Your task to perform on an android device: uninstall "Nova Launcher" Image 0: 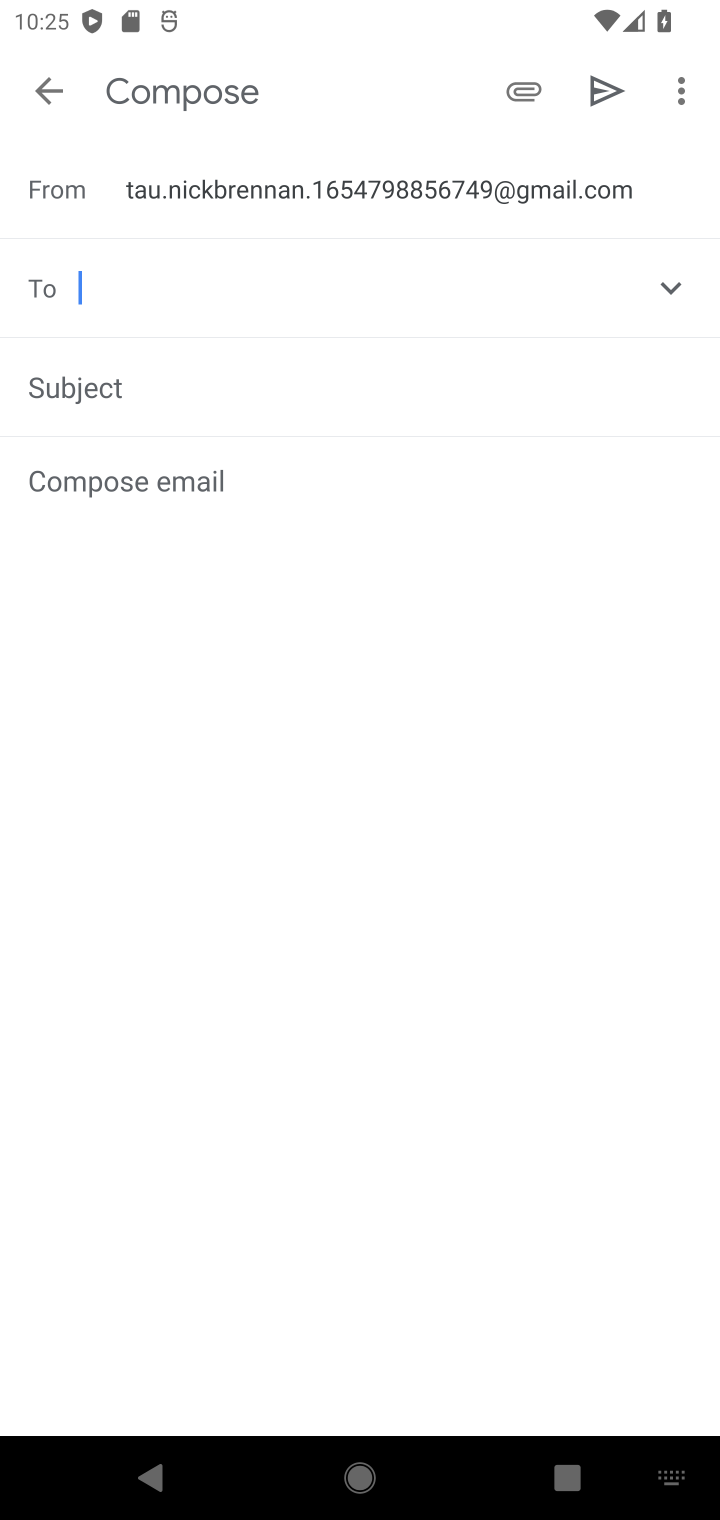
Step 0: press home button
Your task to perform on an android device: uninstall "Nova Launcher" Image 1: 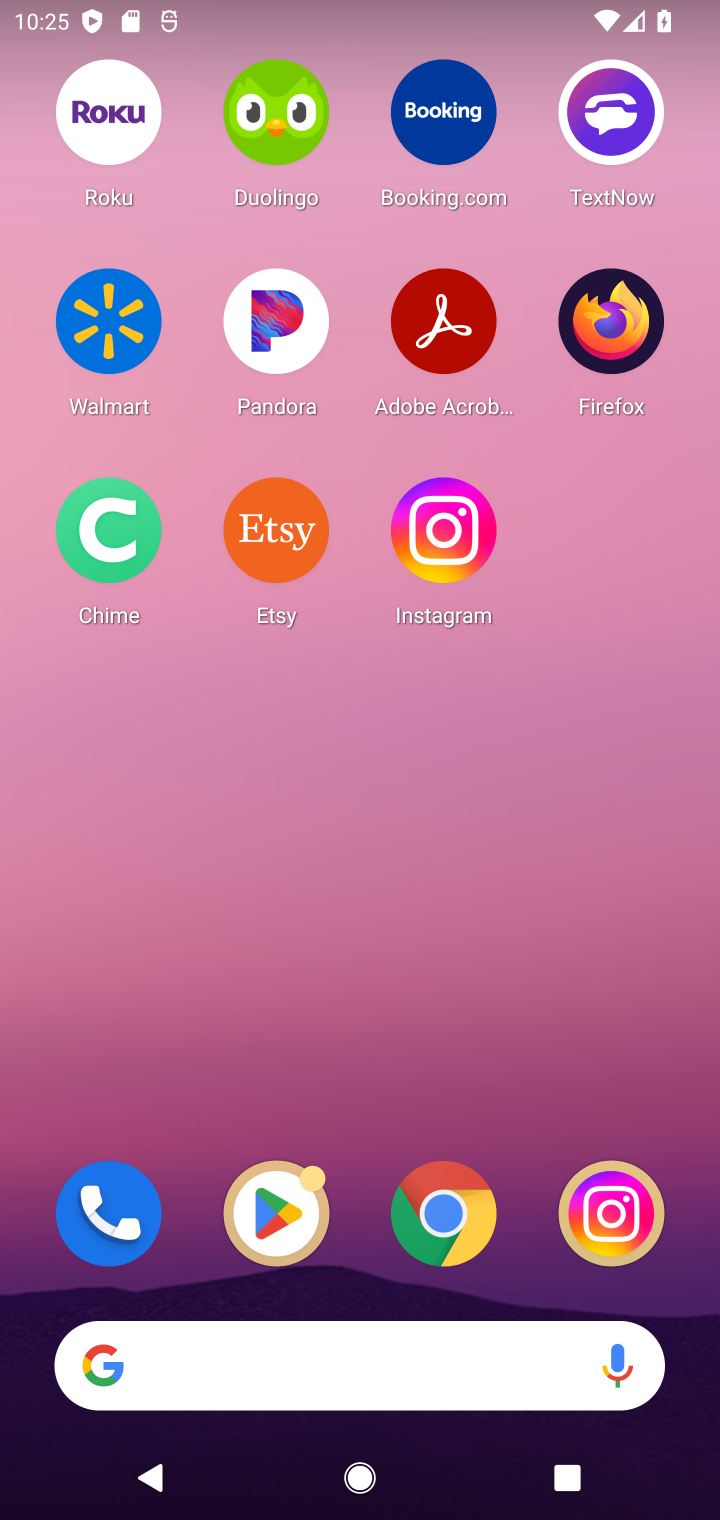
Step 1: click (277, 1192)
Your task to perform on an android device: uninstall "Nova Launcher" Image 2: 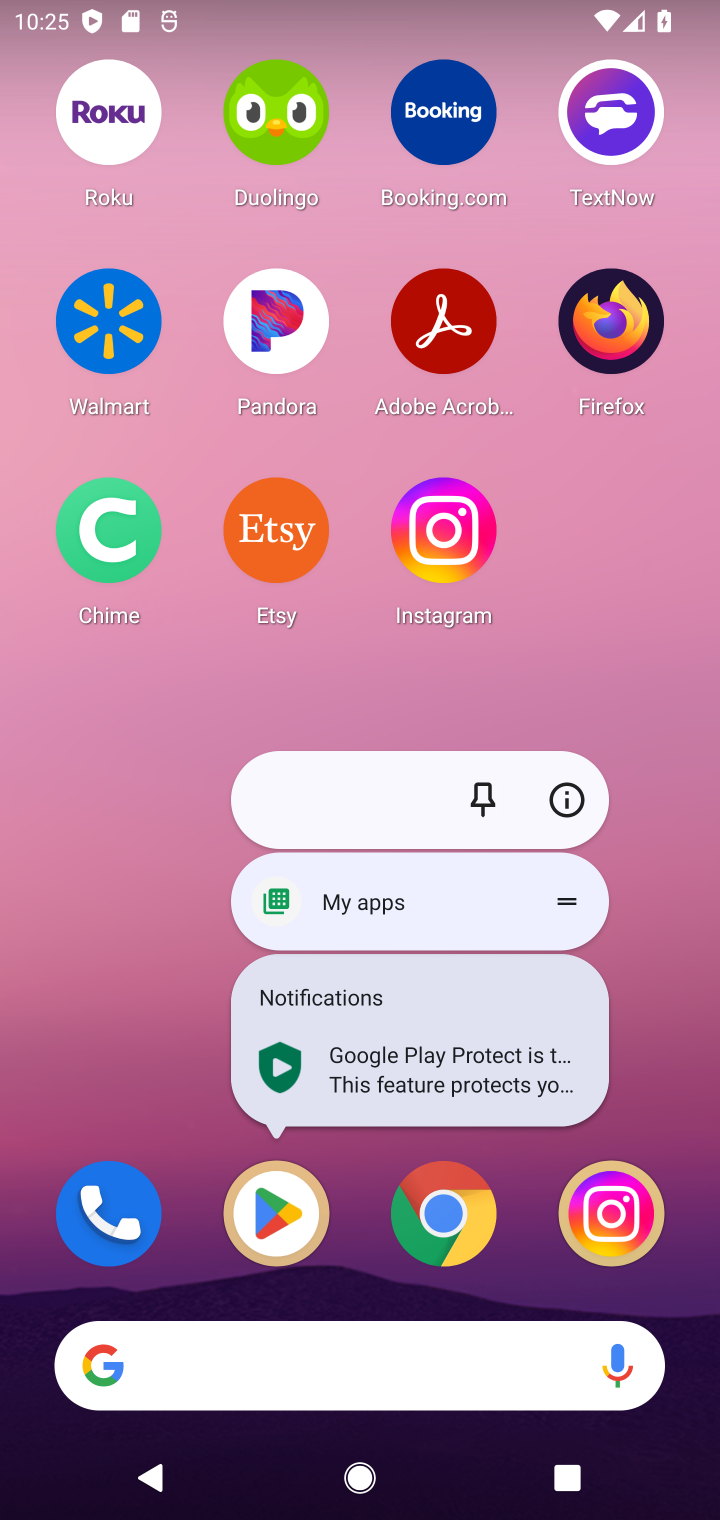
Step 2: click (277, 1216)
Your task to perform on an android device: uninstall "Nova Launcher" Image 3: 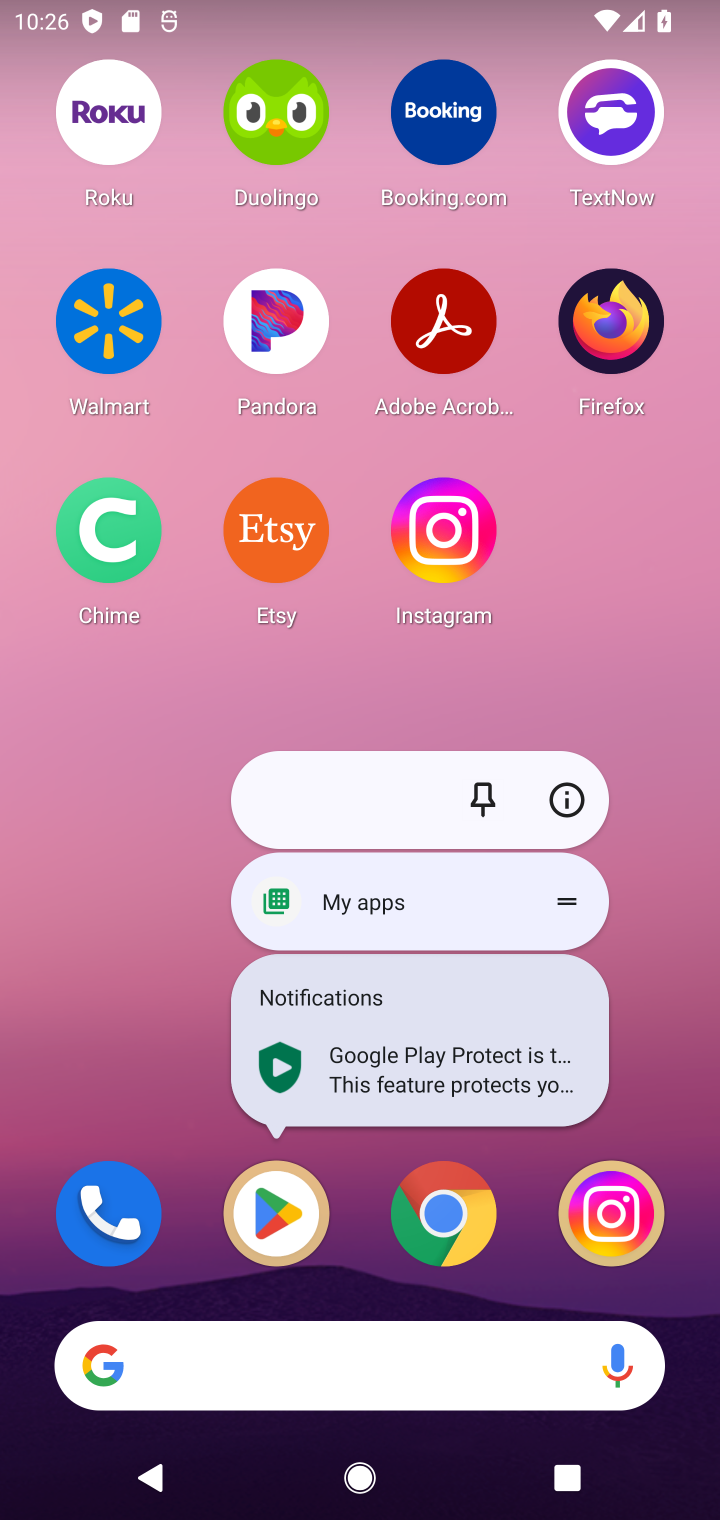
Step 3: click (277, 1218)
Your task to perform on an android device: uninstall "Nova Launcher" Image 4: 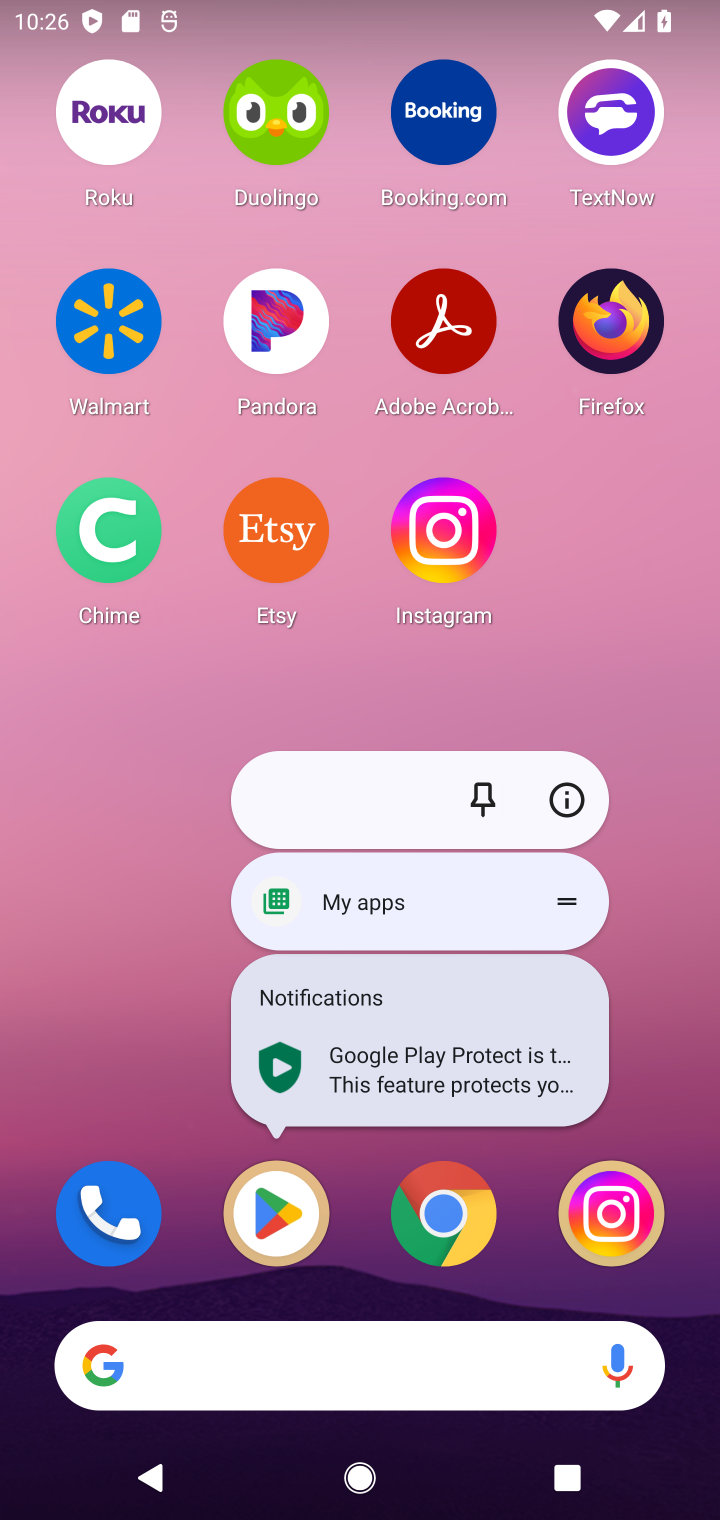
Step 4: click (277, 1218)
Your task to perform on an android device: uninstall "Nova Launcher" Image 5: 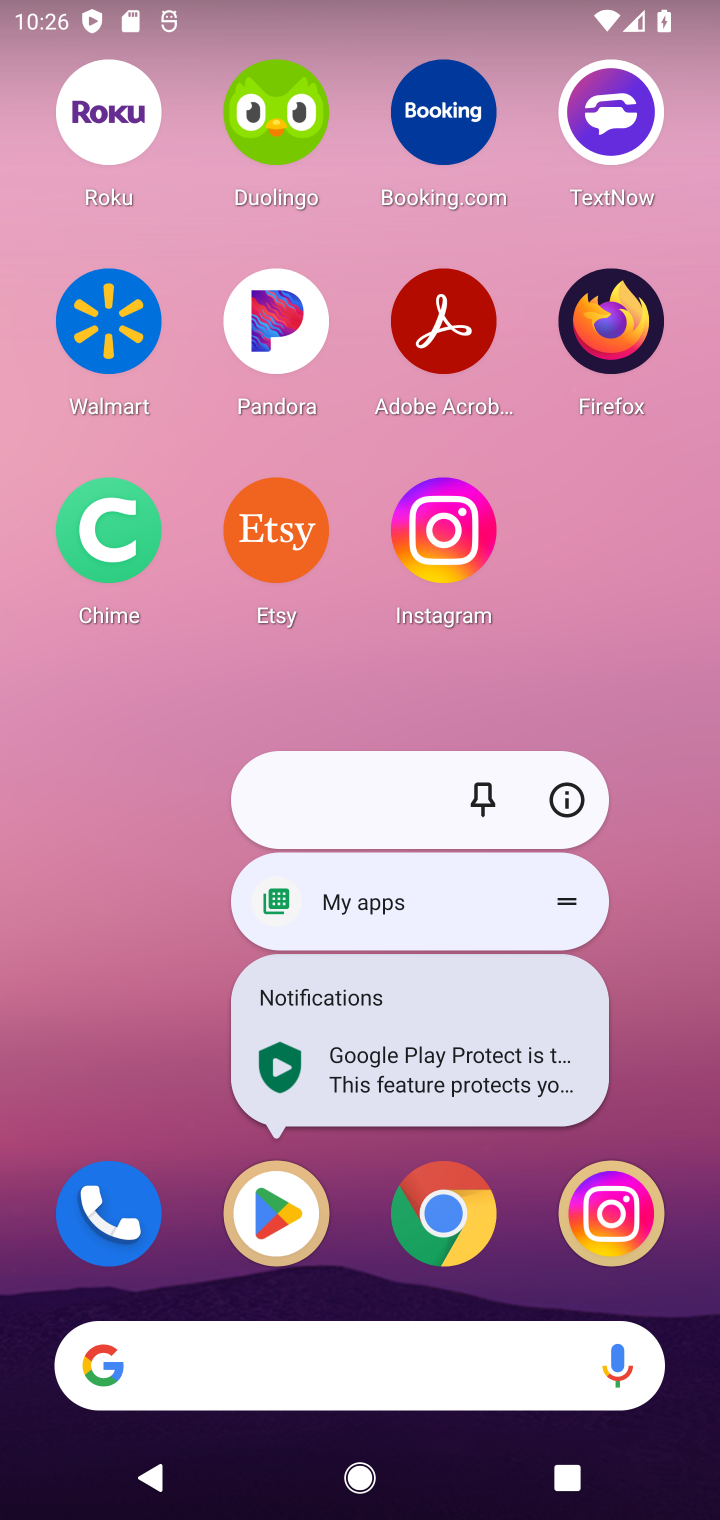
Step 5: click (277, 1218)
Your task to perform on an android device: uninstall "Nova Launcher" Image 6: 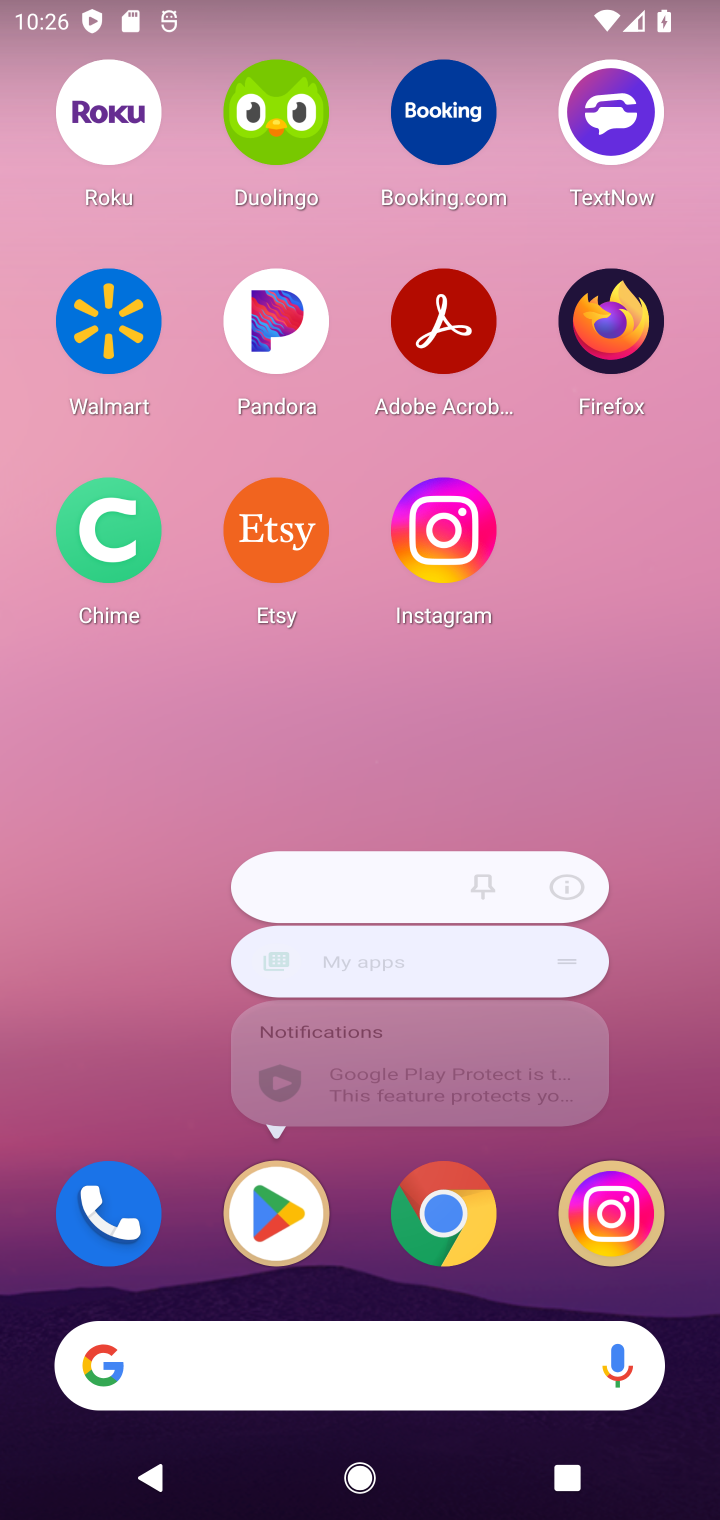
Step 6: click (277, 1218)
Your task to perform on an android device: uninstall "Nova Launcher" Image 7: 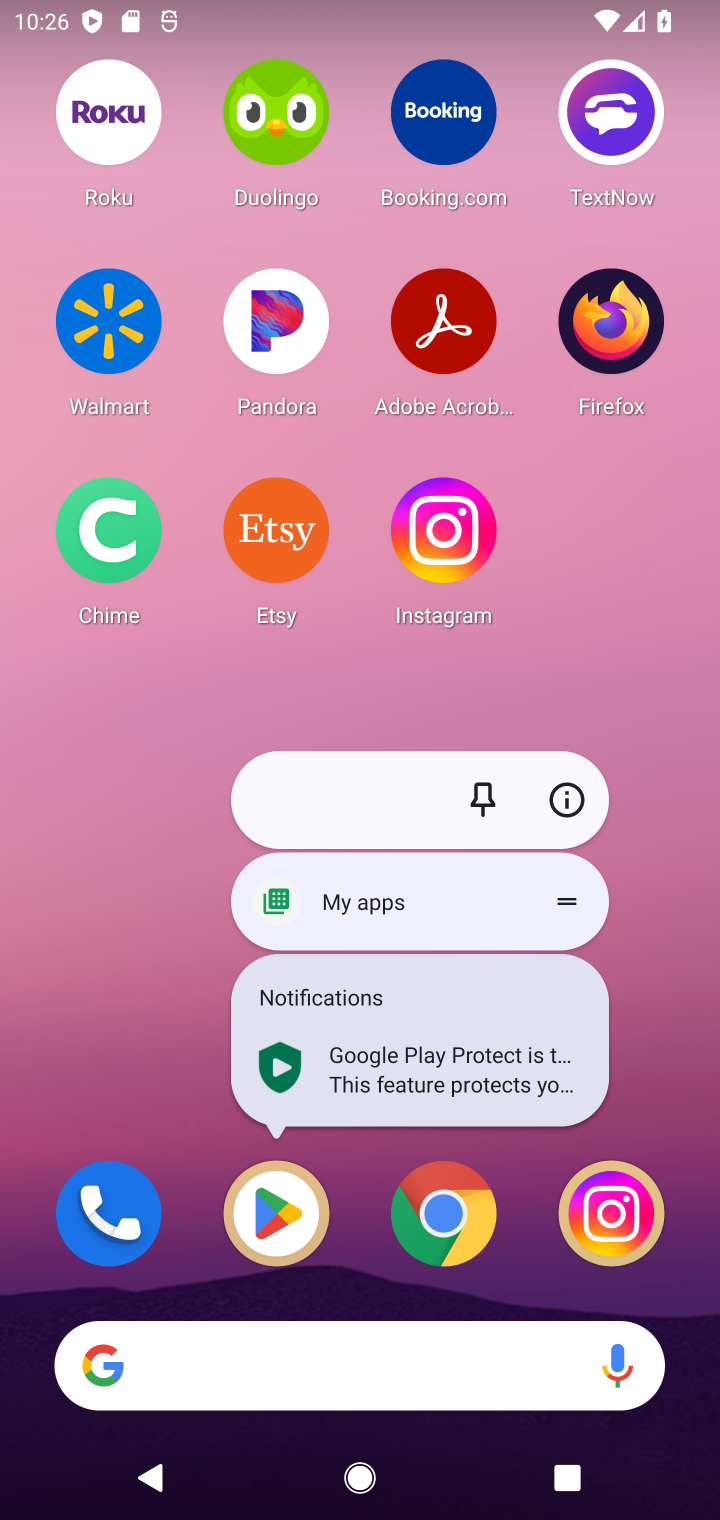
Step 7: click (277, 1218)
Your task to perform on an android device: uninstall "Nova Launcher" Image 8: 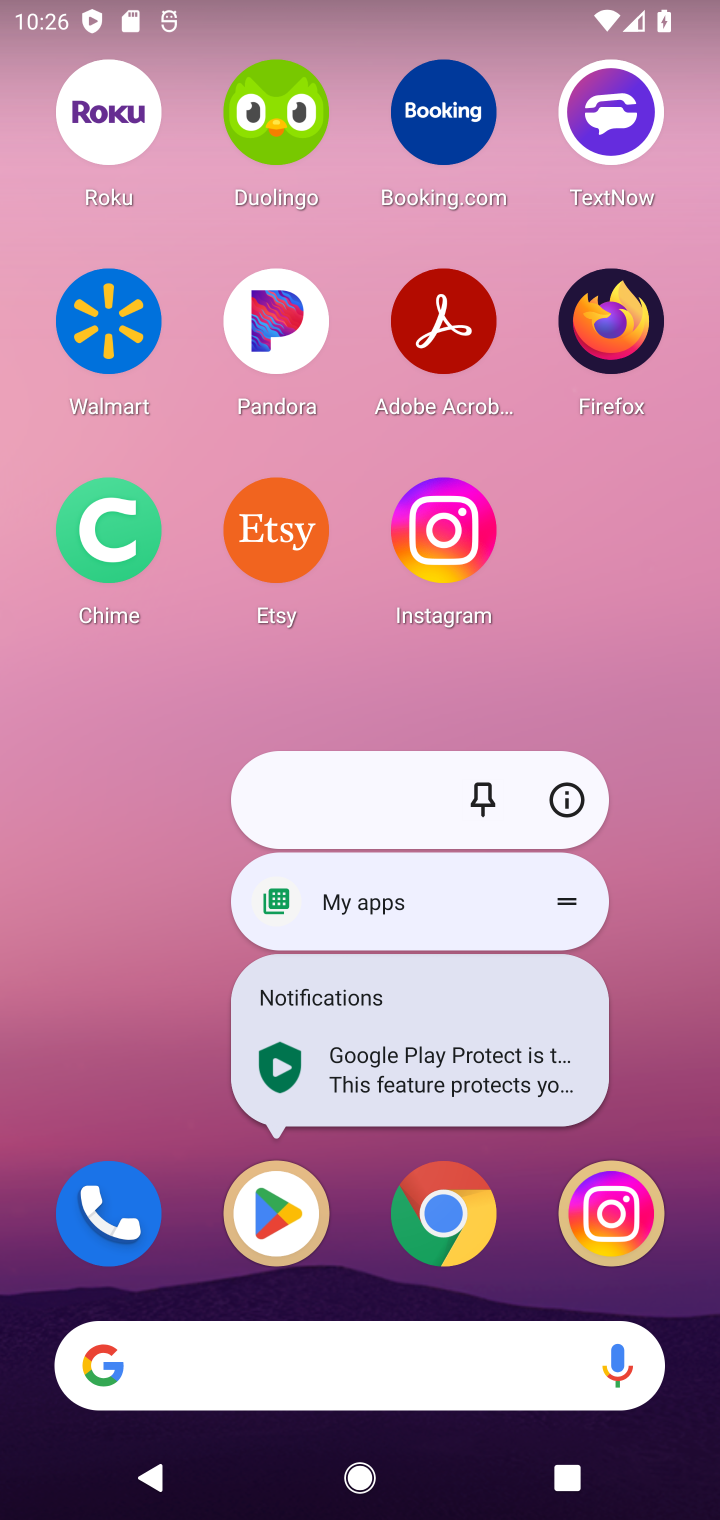
Step 8: click (277, 1216)
Your task to perform on an android device: uninstall "Nova Launcher" Image 9: 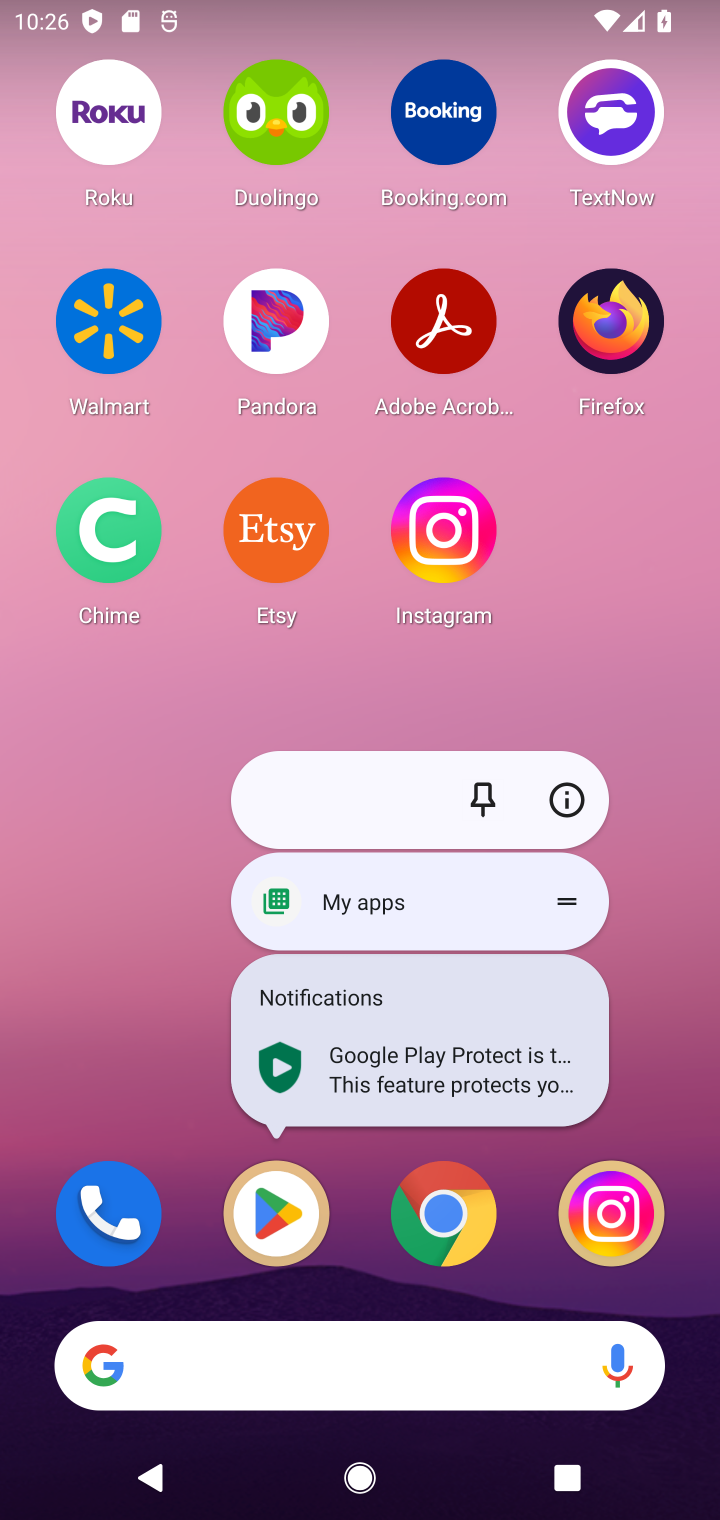
Step 9: click (302, 1216)
Your task to perform on an android device: uninstall "Nova Launcher" Image 10: 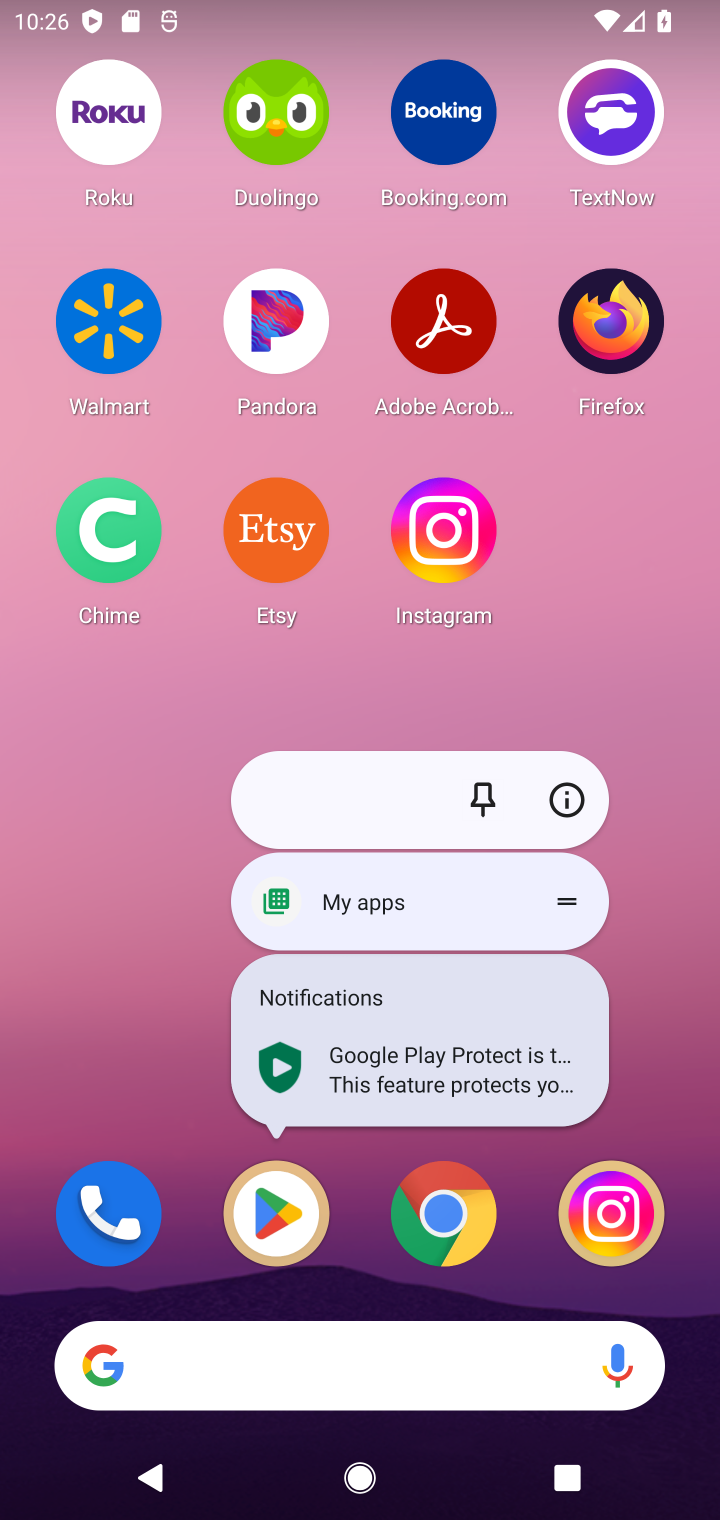
Step 10: click (302, 1216)
Your task to perform on an android device: uninstall "Nova Launcher" Image 11: 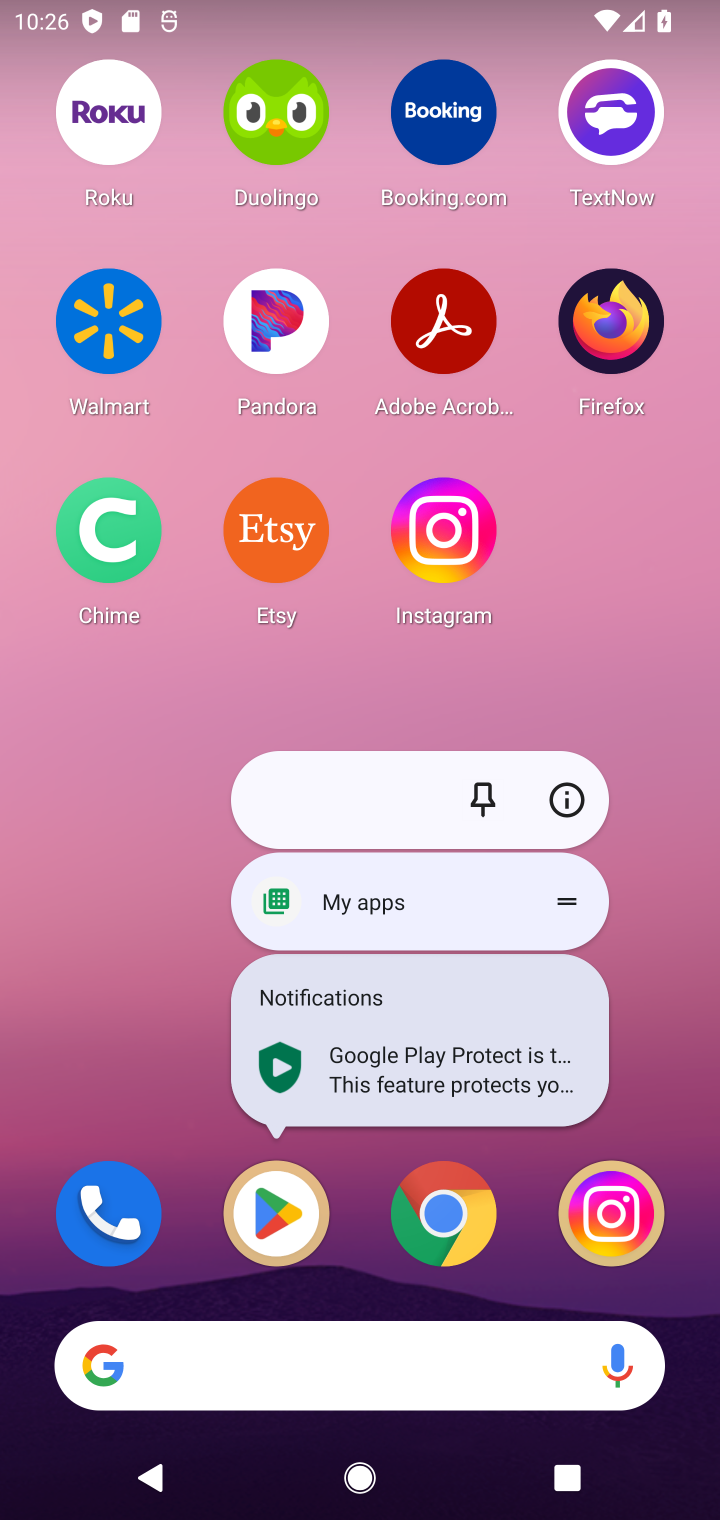
Step 11: click (276, 1232)
Your task to perform on an android device: uninstall "Nova Launcher" Image 12: 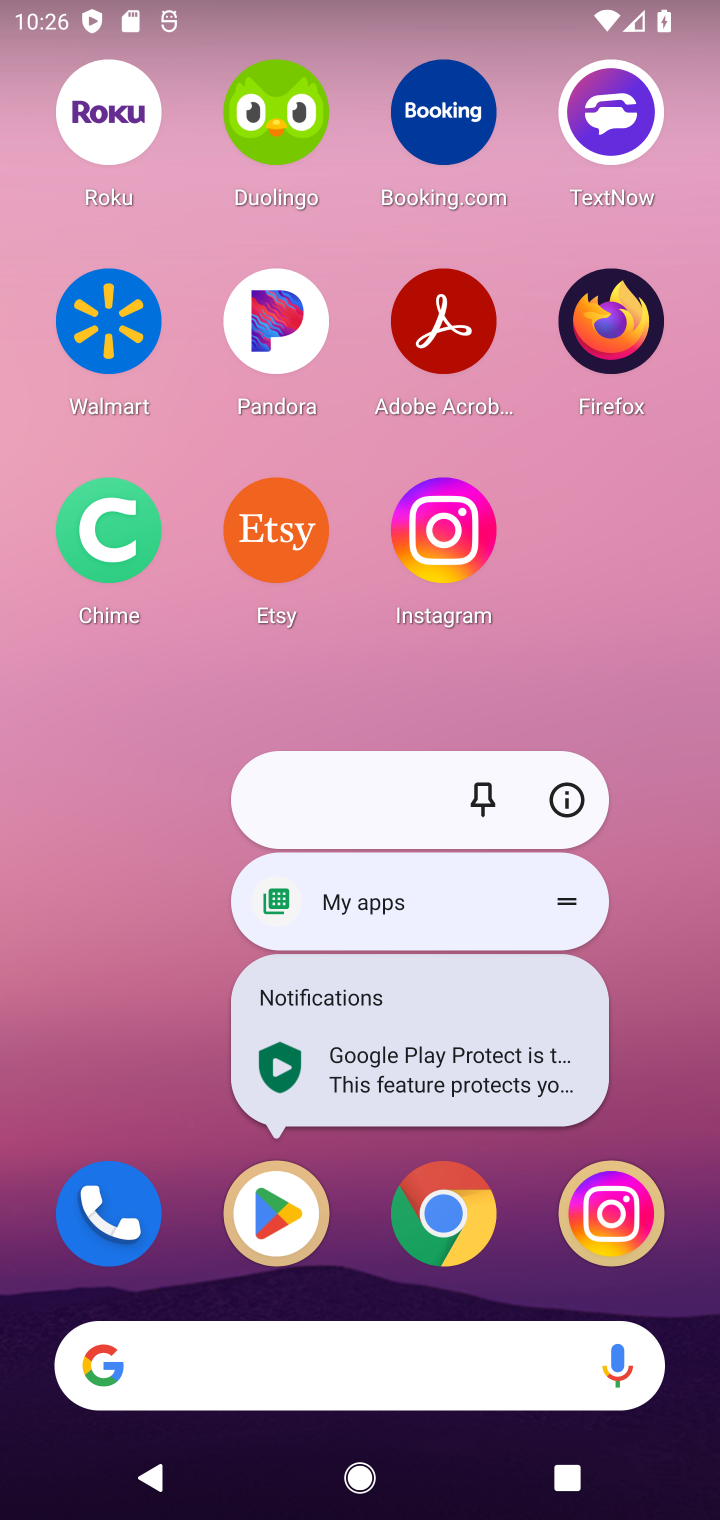
Step 12: click (276, 1230)
Your task to perform on an android device: uninstall "Nova Launcher" Image 13: 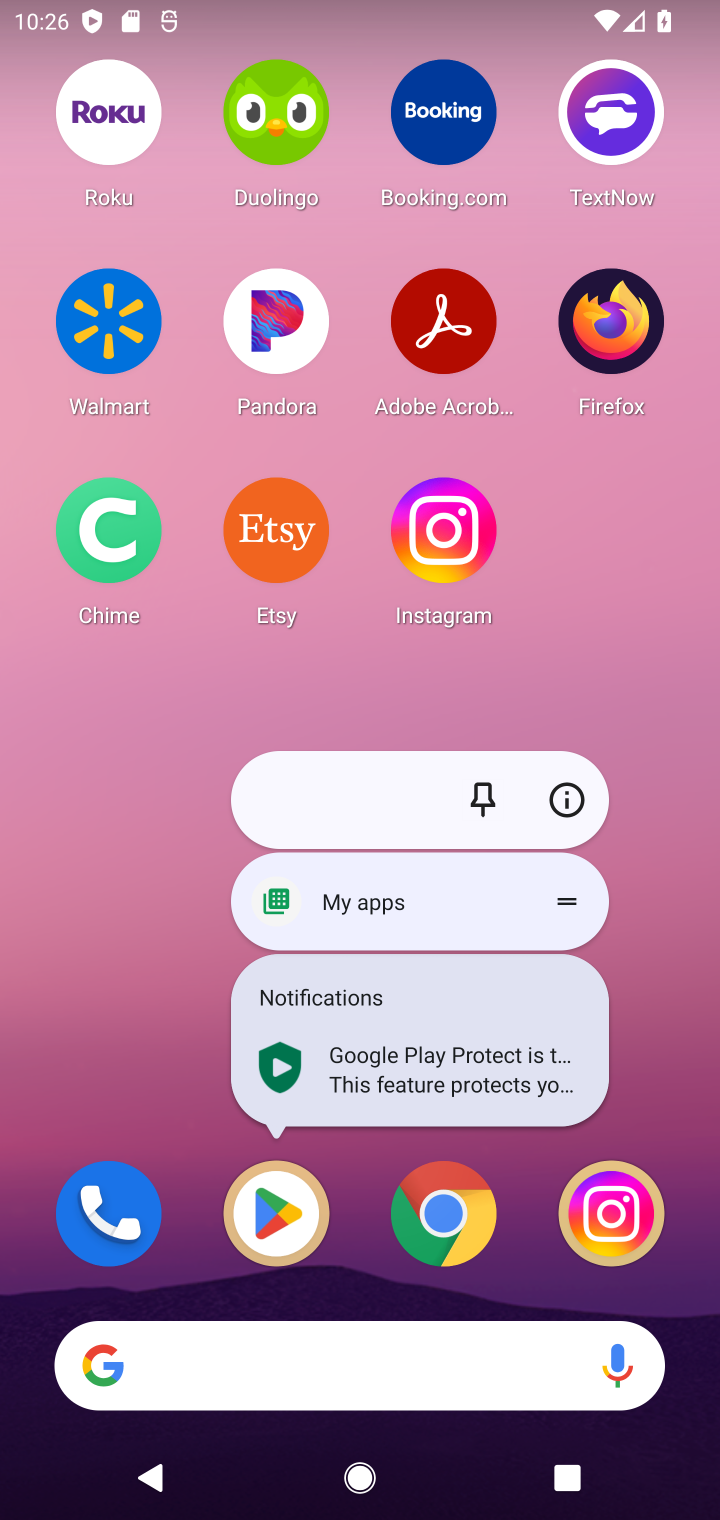
Step 13: click (278, 1225)
Your task to perform on an android device: uninstall "Nova Launcher" Image 14: 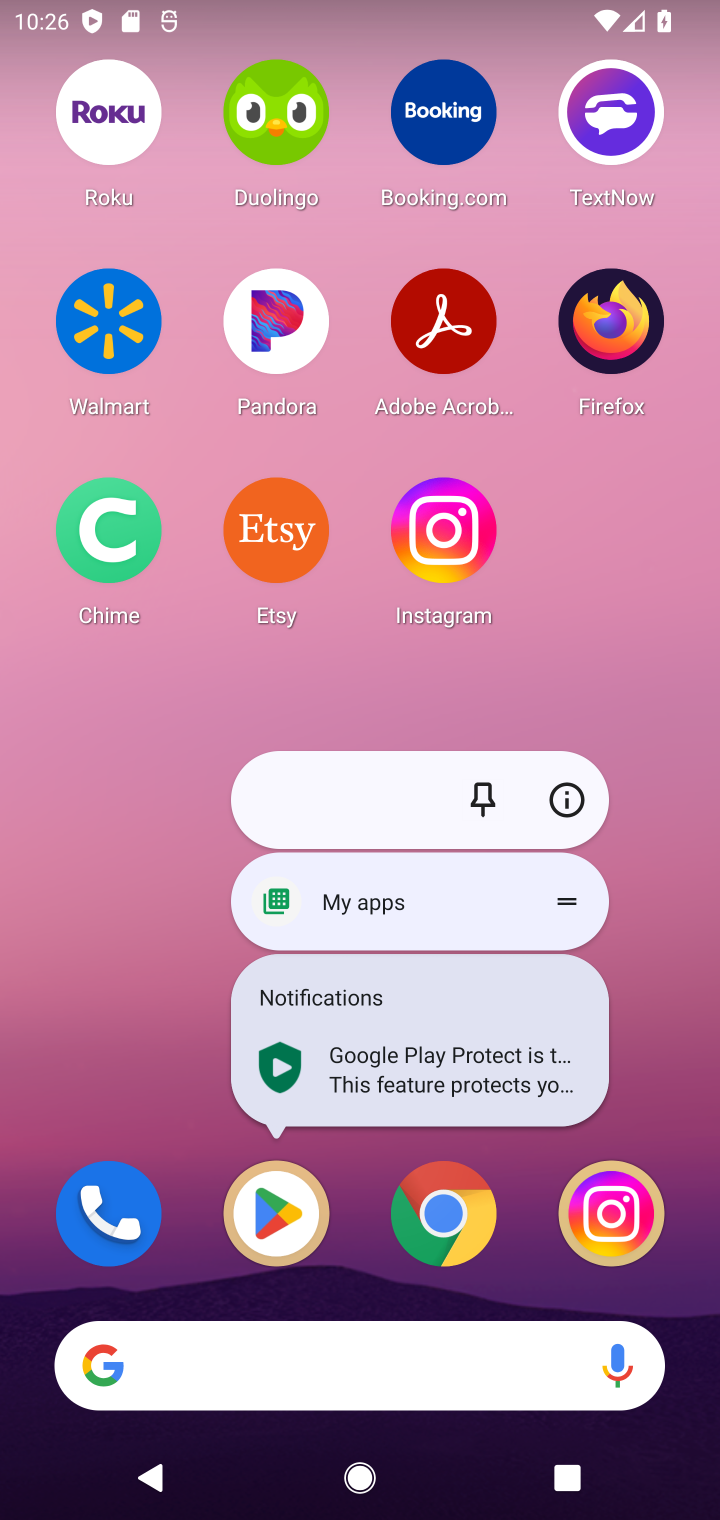
Step 14: click (274, 1219)
Your task to perform on an android device: uninstall "Nova Launcher" Image 15: 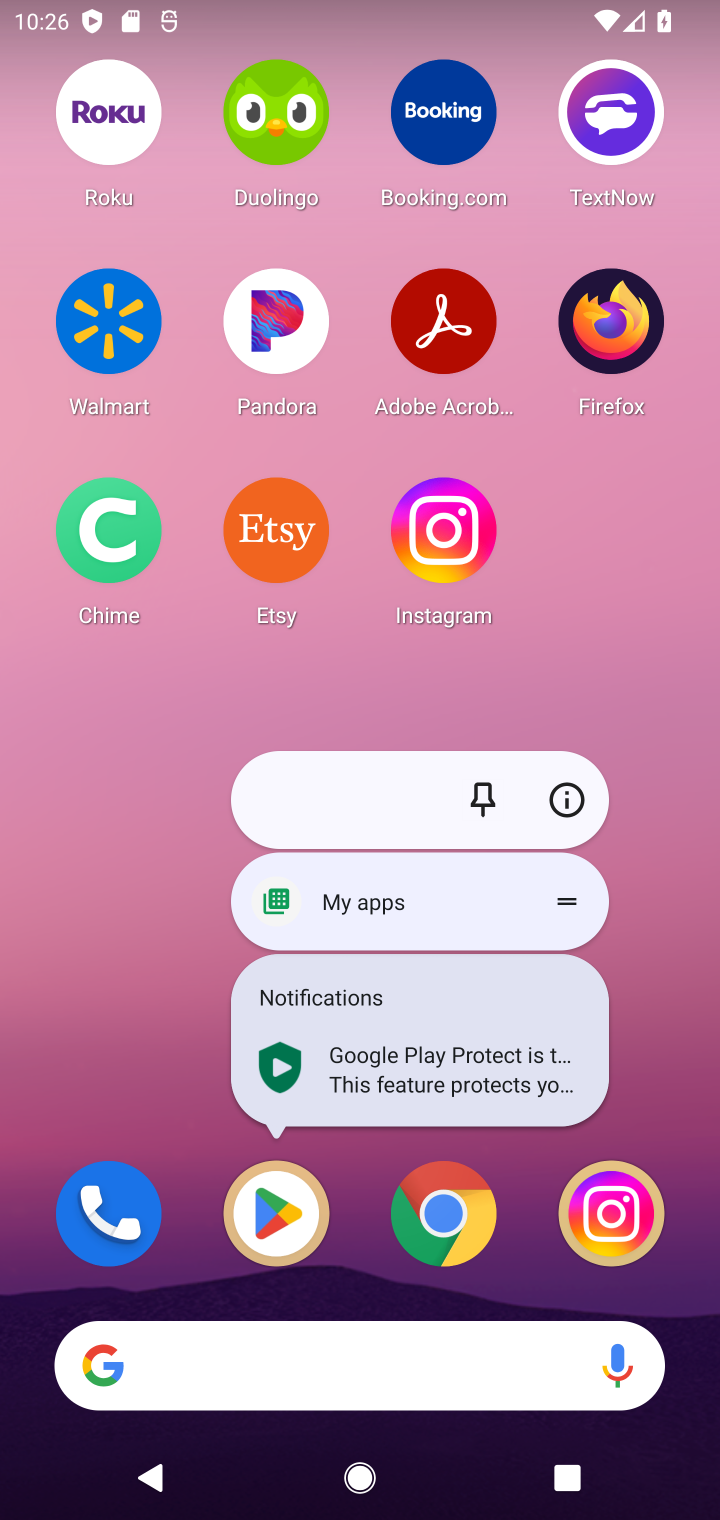
Step 15: click (272, 1252)
Your task to perform on an android device: uninstall "Nova Launcher" Image 16: 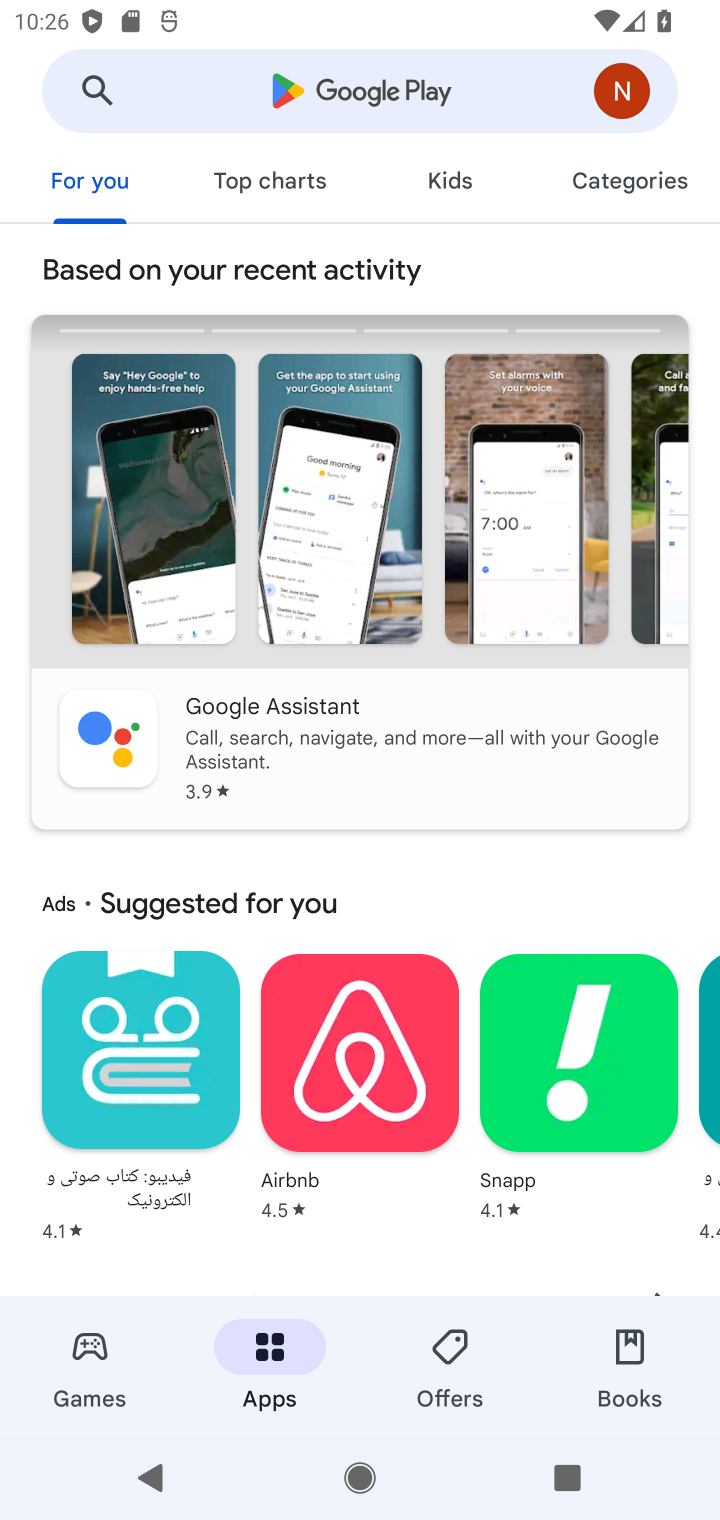
Step 16: click (268, 1231)
Your task to perform on an android device: uninstall "Nova Launcher" Image 17: 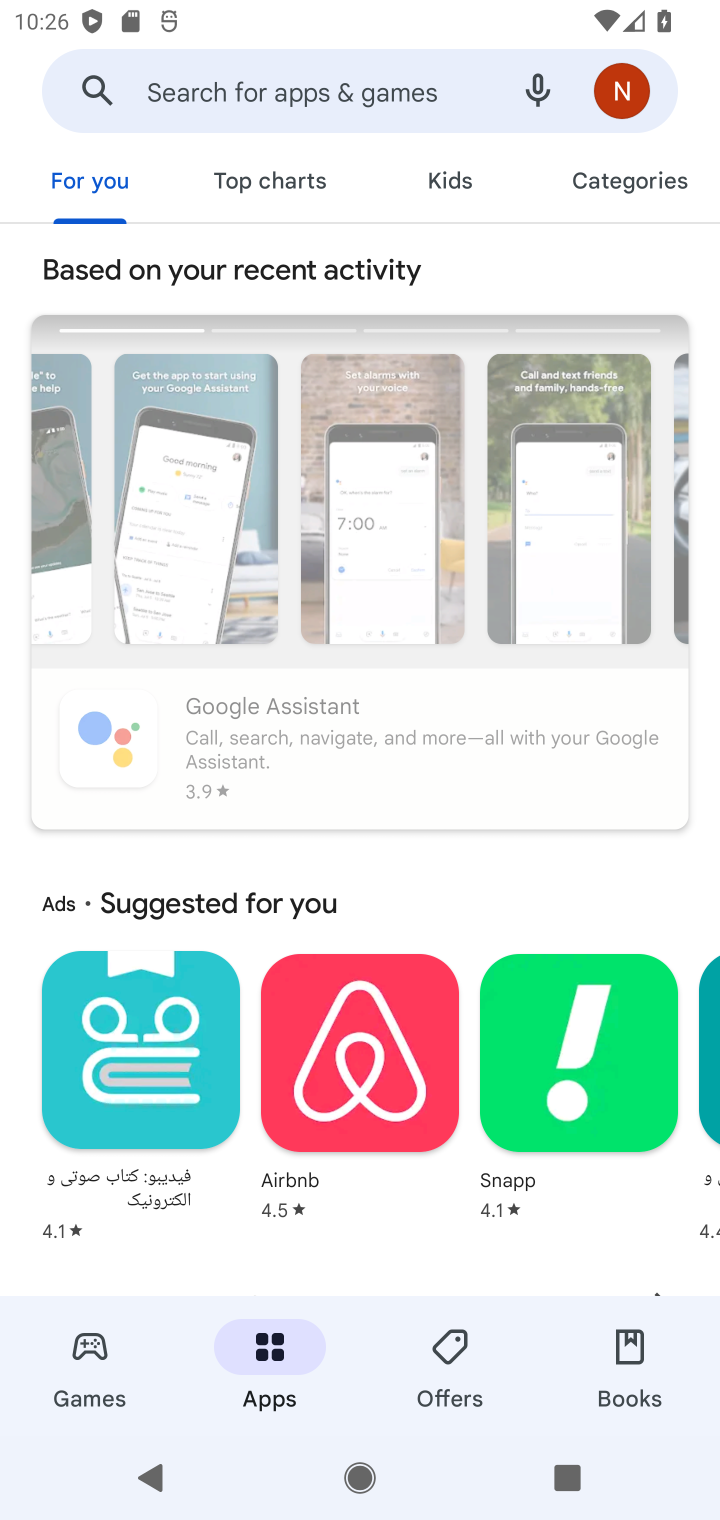
Step 17: click (244, 82)
Your task to perform on an android device: uninstall "Nova Launcher" Image 18: 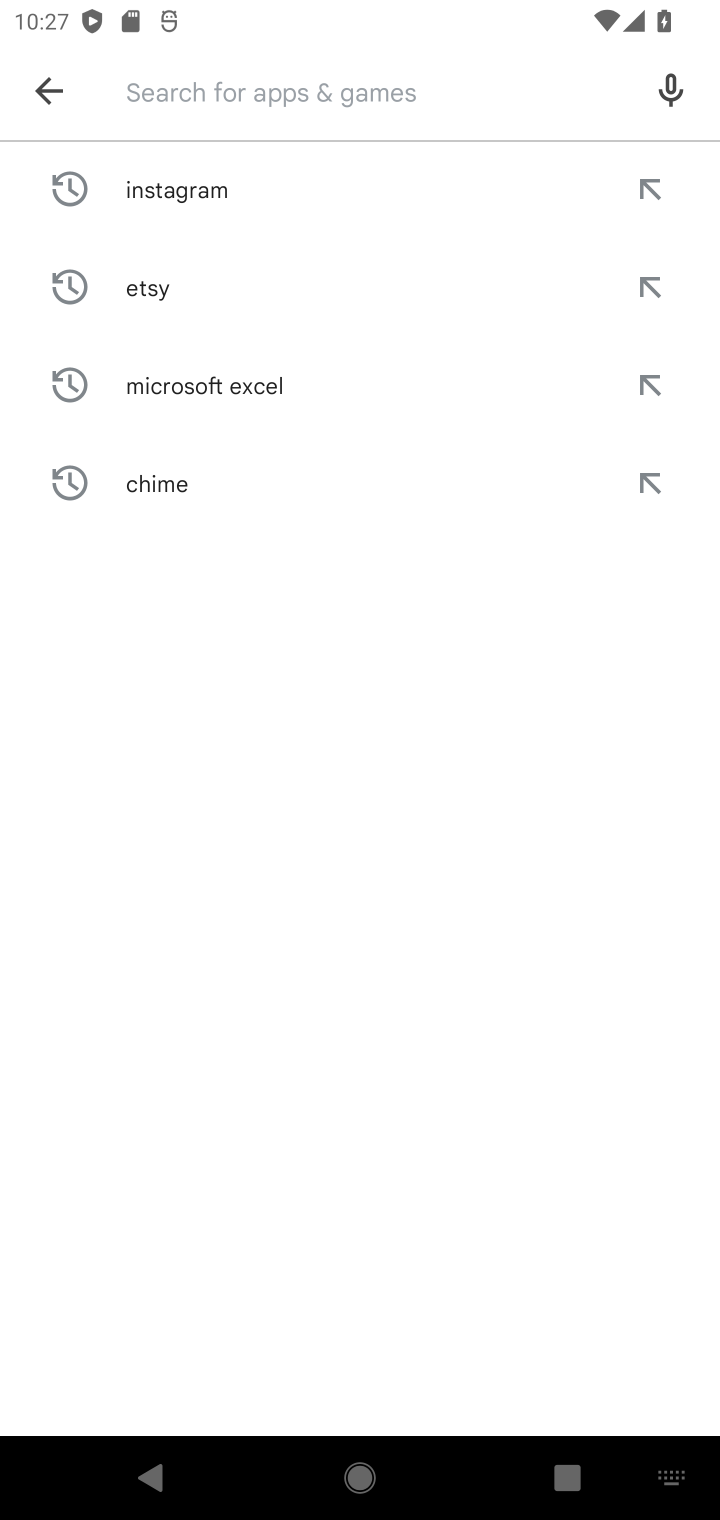
Step 18: click (268, 84)
Your task to perform on an android device: uninstall "Nova Launcher" Image 19: 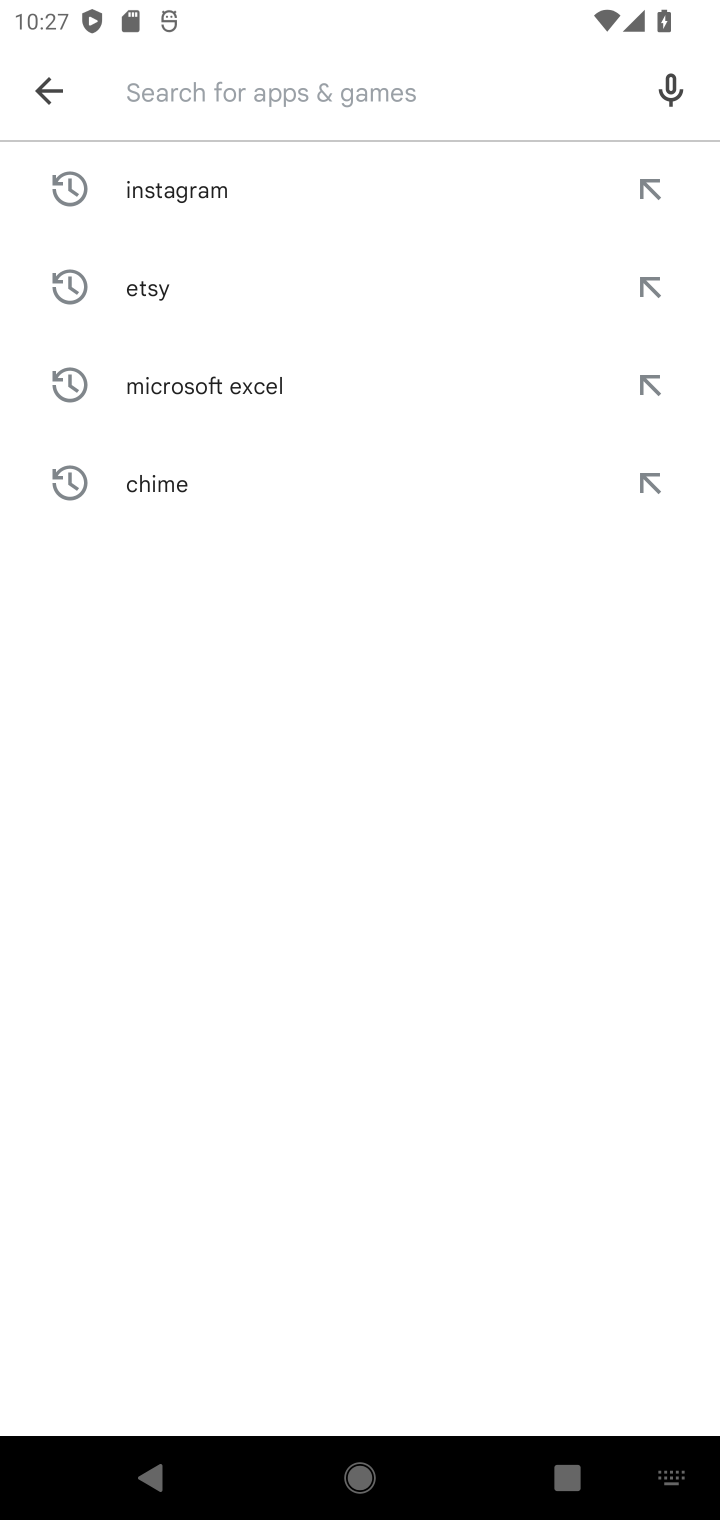
Step 19: type "Nova launcher"
Your task to perform on an android device: uninstall "Nova Launcher" Image 20: 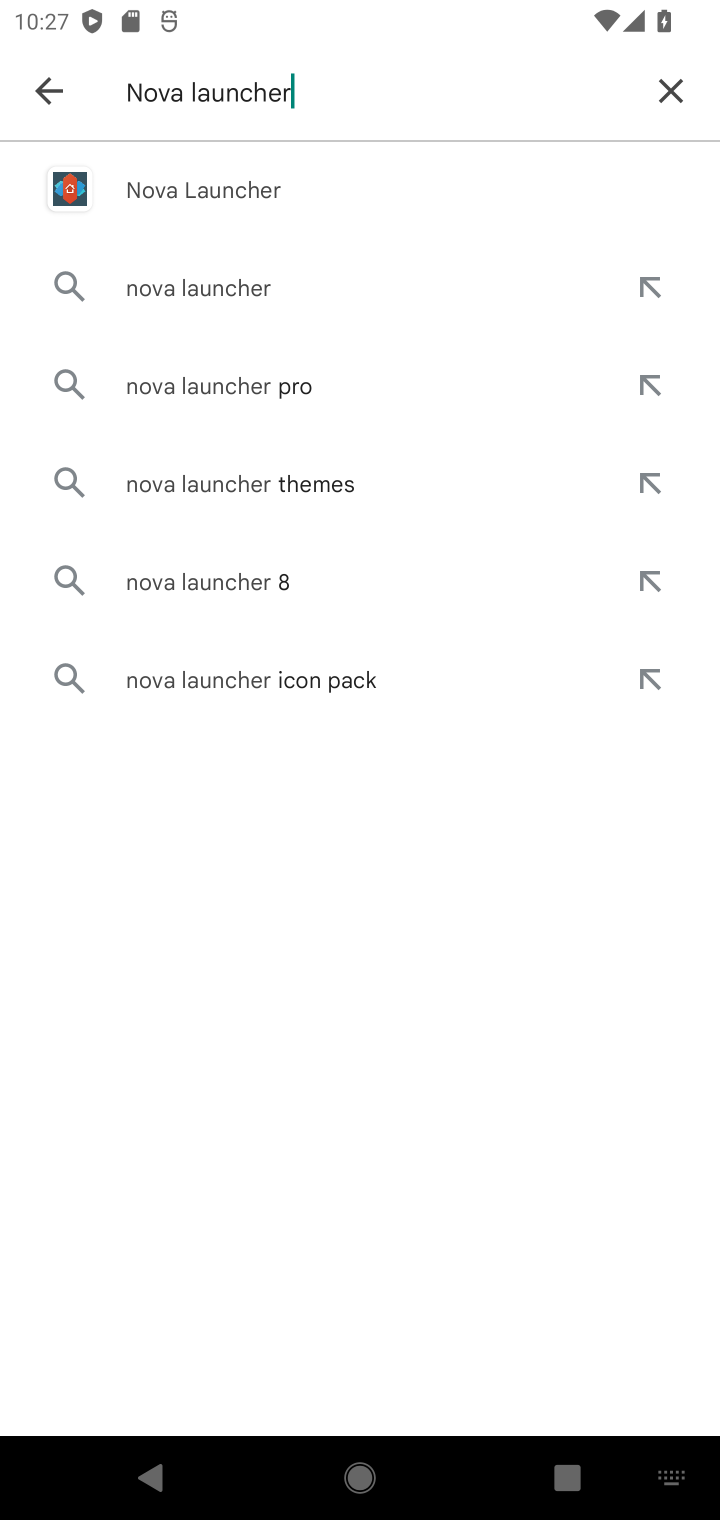
Step 20: click (167, 225)
Your task to perform on an android device: uninstall "Nova Launcher" Image 21: 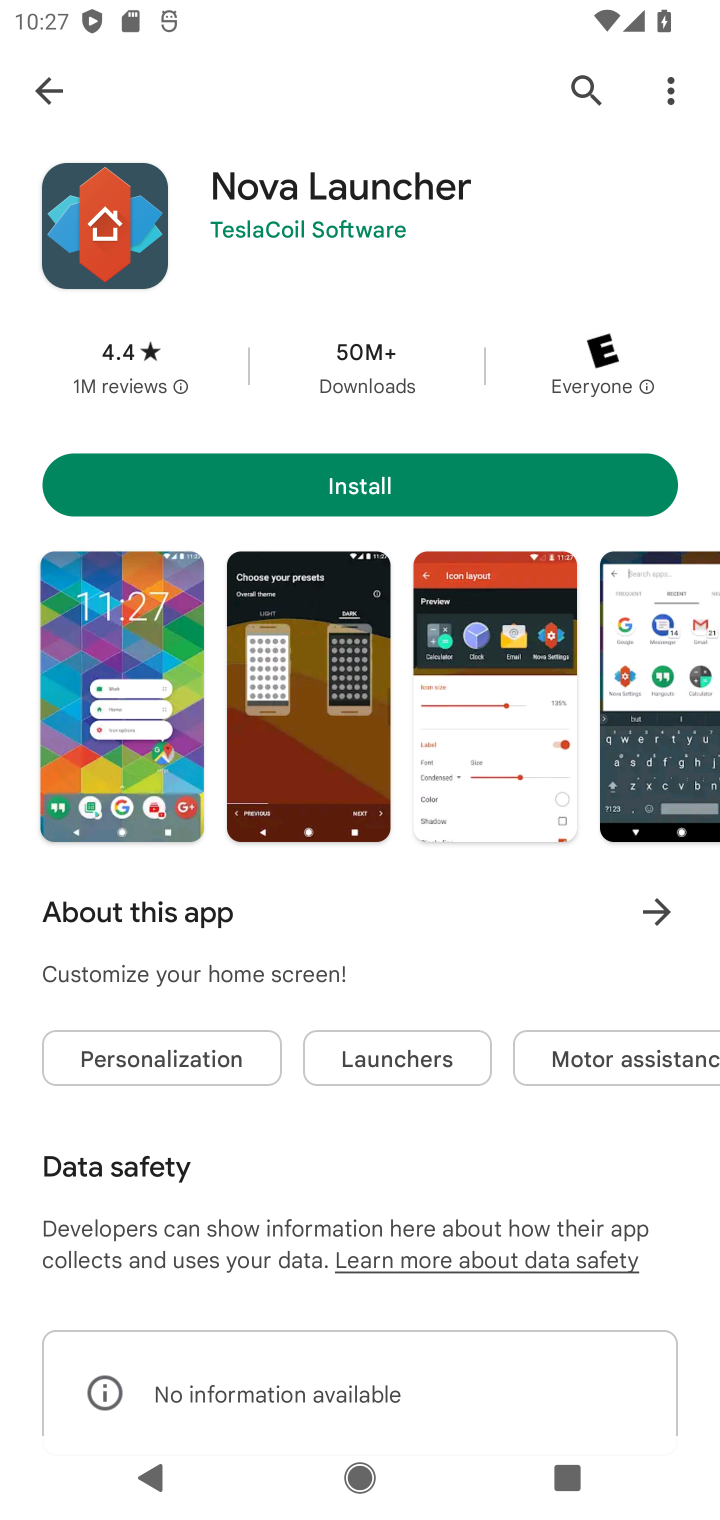
Step 21: task complete